Your task to perform on an android device: change text size in settings app Image 0: 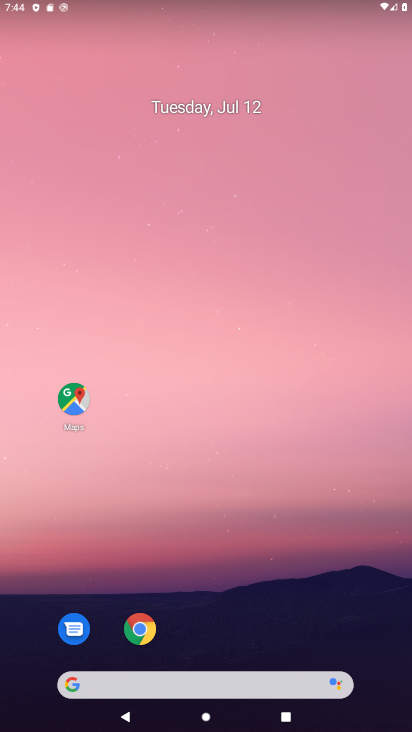
Step 0: drag from (221, 394) to (199, 222)
Your task to perform on an android device: change text size in settings app Image 1: 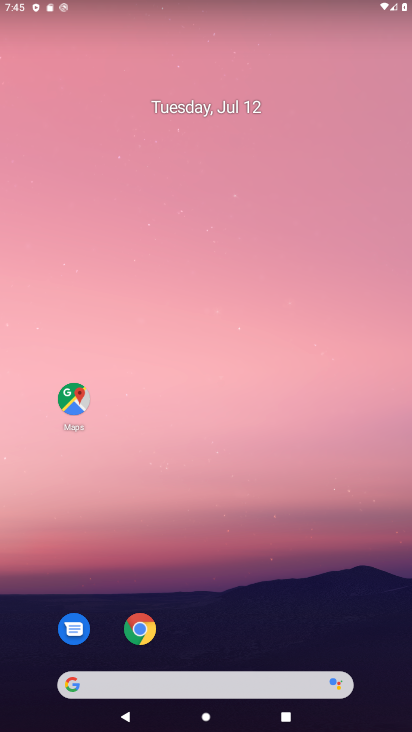
Step 1: drag from (229, 573) to (412, 148)
Your task to perform on an android device: change text size in settings app Image 2: 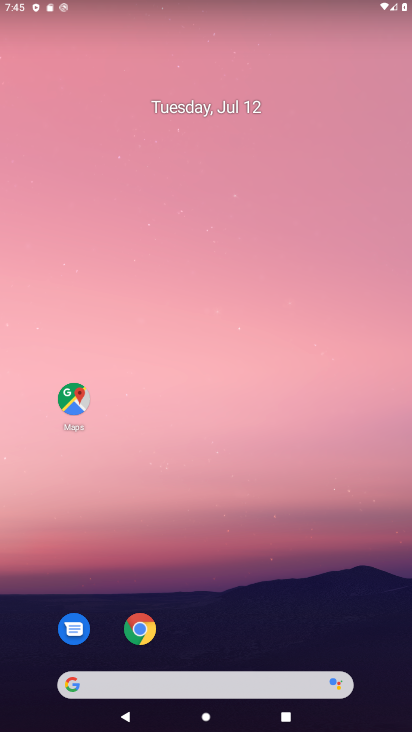
Step 2: drag from (230, 176) to (224, 53)
Your task to perform on an android device: change text size in settings app Image 3: 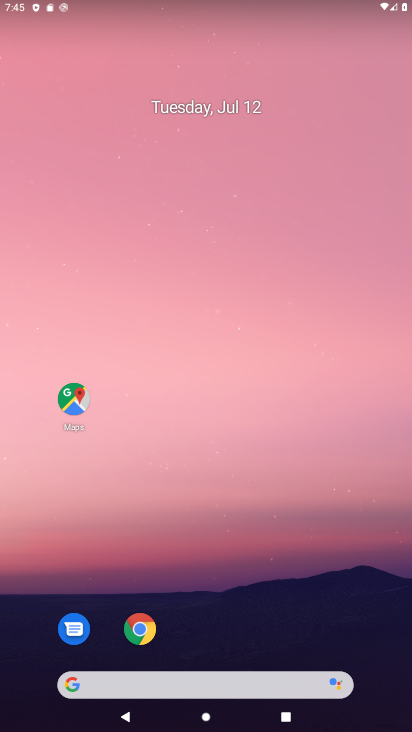
Step 3: drag from (259, 666) to (178, 27)
Your task to perform on an android device: change text size in settings app Image 4: 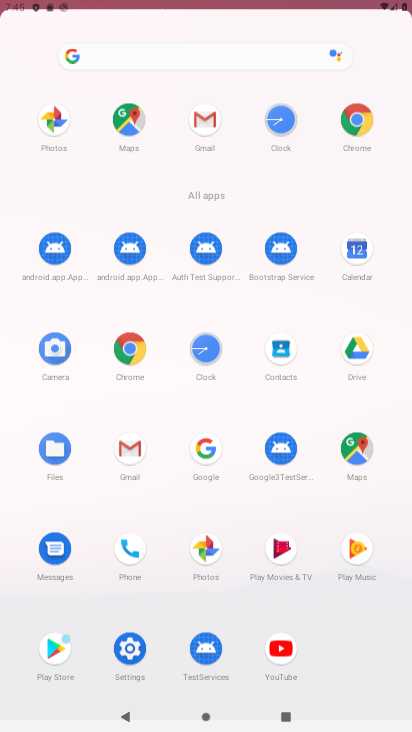
Step 4: drag from (229, 579) to (194, 41)
Your task to perform on an android device: change text size in settings app Image 5: 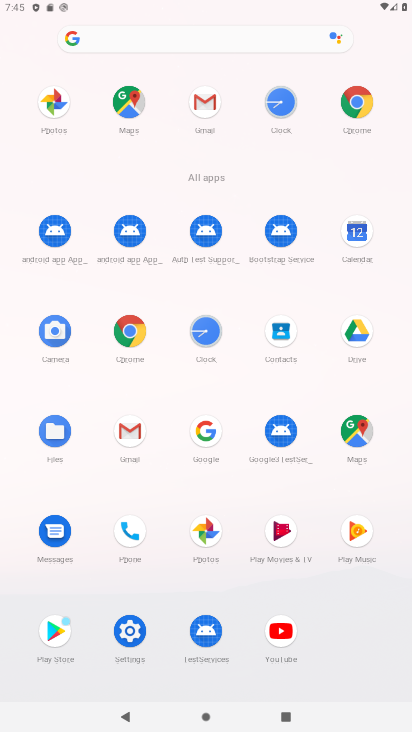
Step 5: click (134, 640)
Your task to perform on an android device: change text size in settings app Image 6: 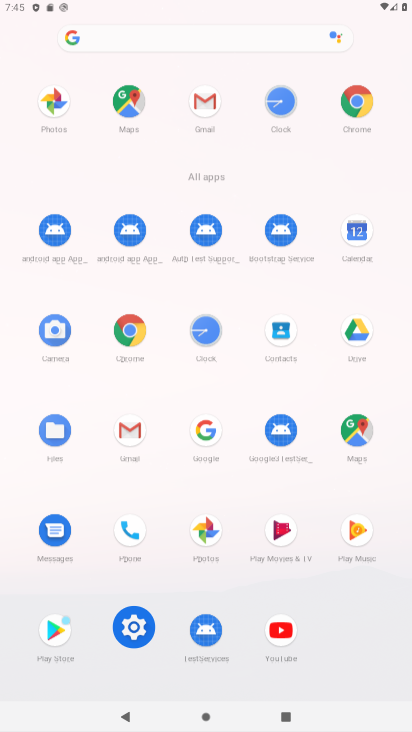
Step 6: click (136, 631)
Your task to perform on an android device: change text size in settings app Image 7: 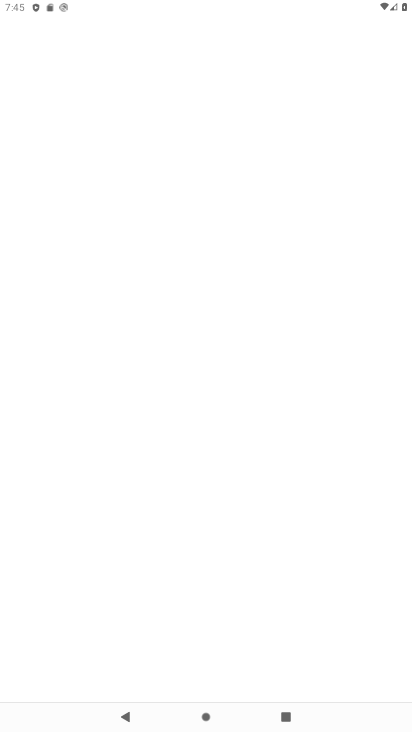
Step 7: click (136, 640)
Your task to perform on an android device: change text size in settings app Image 8: 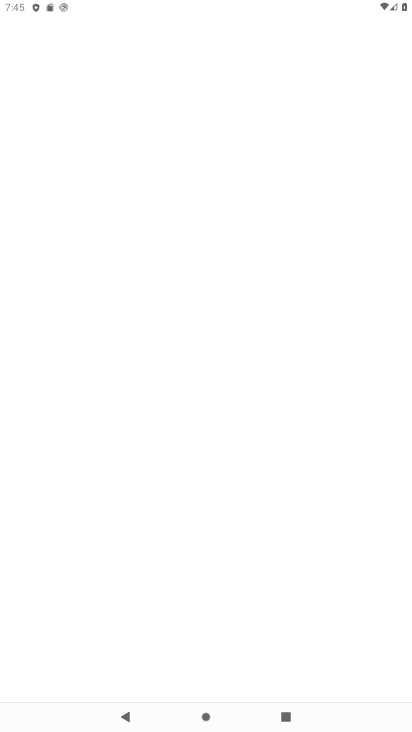
Step 8: click (136, 641)
Your task to perform on an android device: change text size in settings app Image 9: 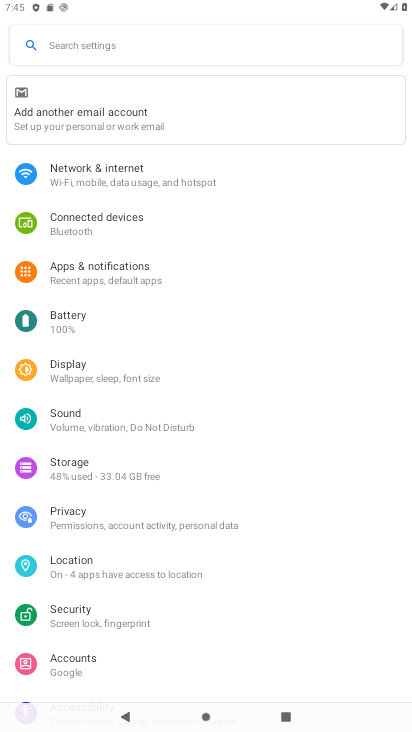
Step 9: click (71, 364)
Your task to perform on an android device: change text size in settings app Image 10: 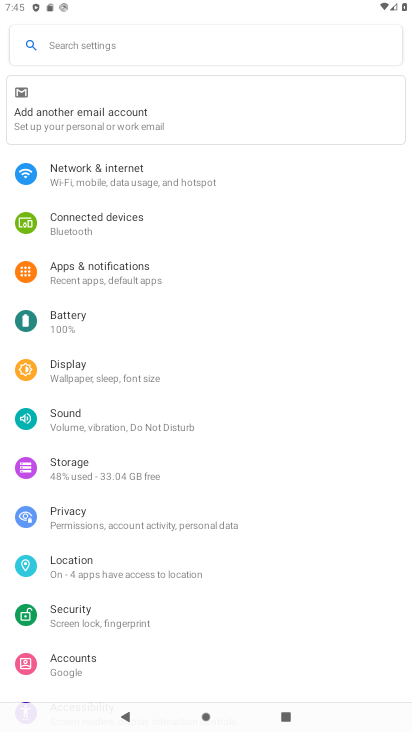
Step 10: click (63, 389)
Your task to perform on an android device: change text size in settings app Image 11: 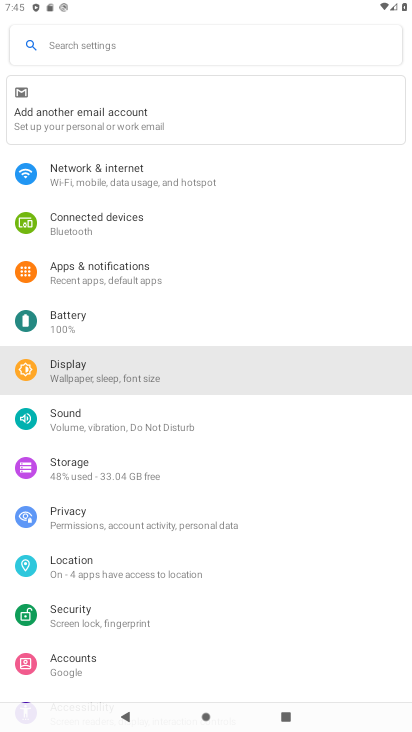
Step 11: click (72, 365)
Your task to perform on an android device: change text size in settings app Image 12: 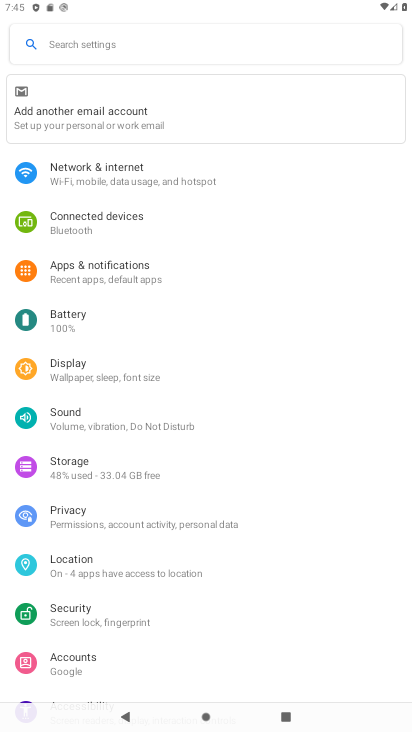
Step 12: click (74, 360)
Your task to perform on an android device: change text size in settings app Image 13: 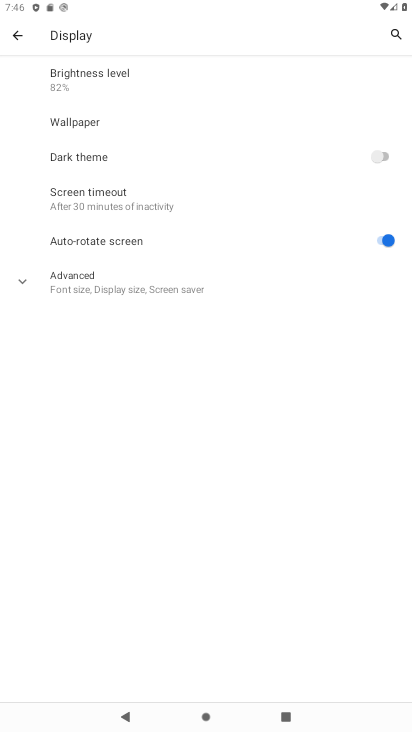
Step 13: click (71, 362)
Your task to perform on an android device: change text size in settings app Image 14: 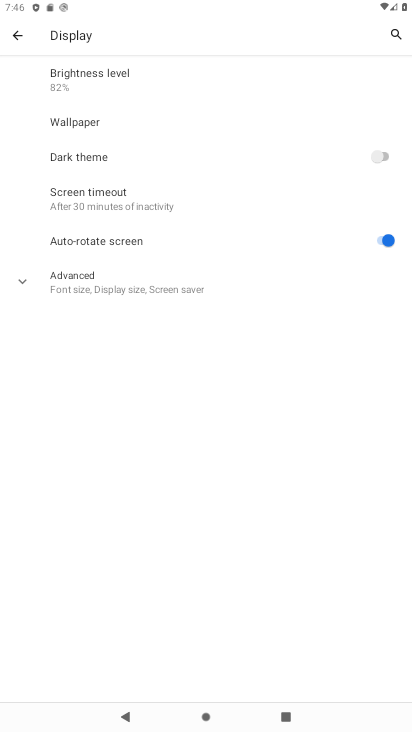
Step 14: click (88, 277)
Your task to perform on an android device: change text size in settings app Image 15: 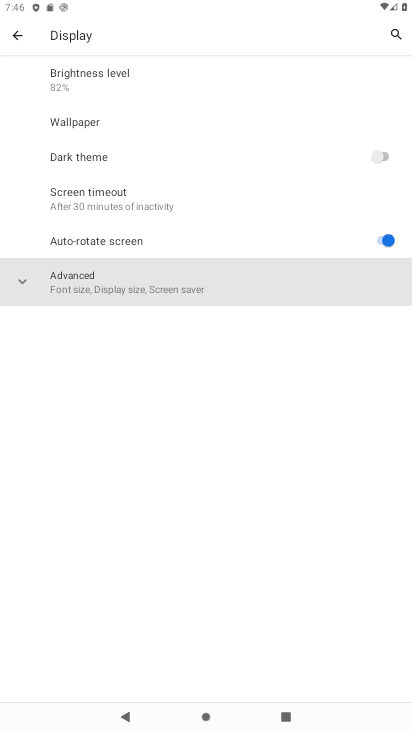
Step 15: click (88, 279)
Your task to perform on an android device: change text size in settings app Image 16: 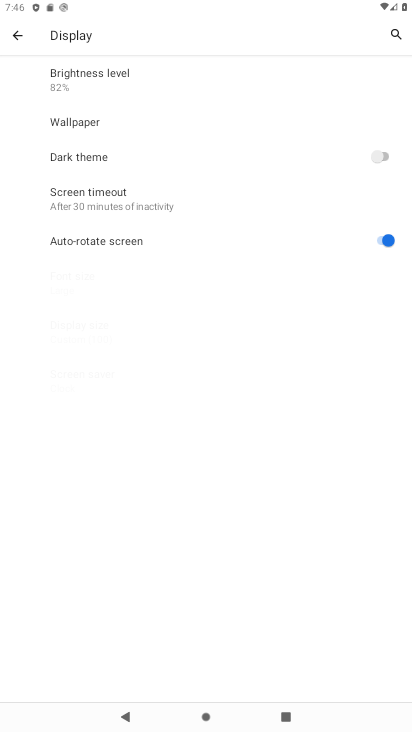
Step 16: click (89, 284)
Your task to perform on an android device: change text size in settings app Image 17: 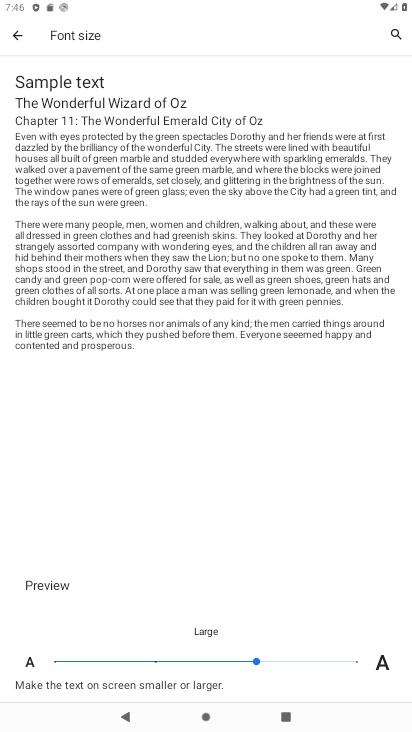
Step 17: click (353, 662)
Your task to perform on an android device: change text size in settings app Image 18: 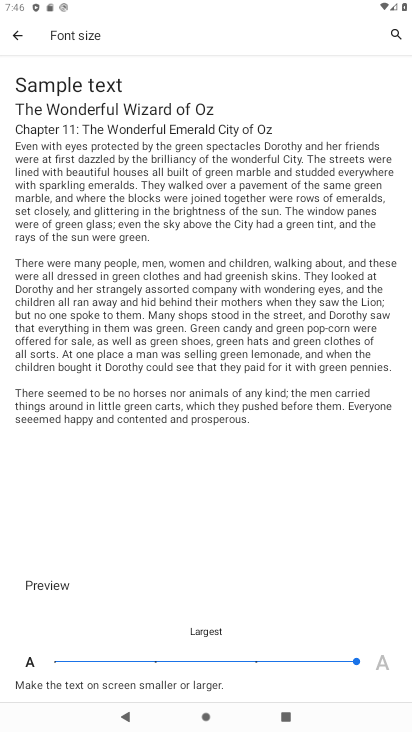
Step 18: click (354, 661)
Your task to perform on an android device: change text size in settings app Image 19: 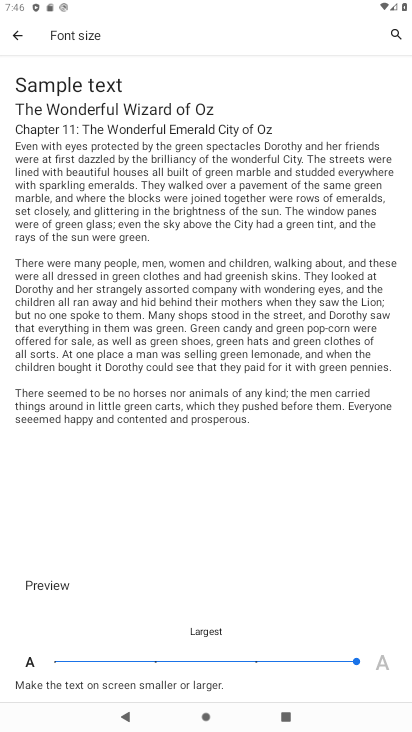
Step 19: click (354, 660)
Your task to perform on an android device: change text size in settings app Image 20: 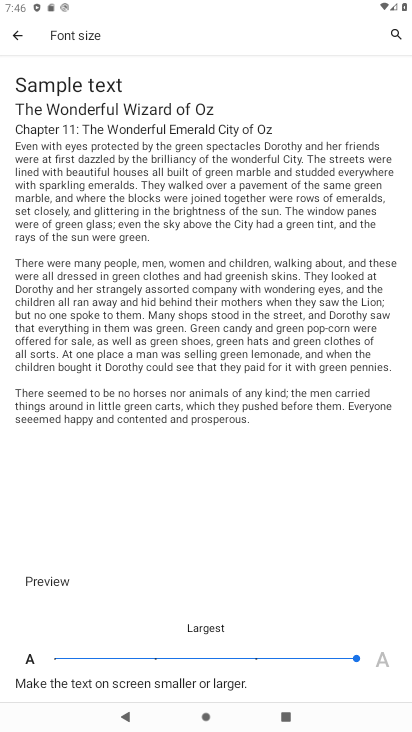
Step 20: task complete